Your task to perform on an android device: toggle location history Image 0: 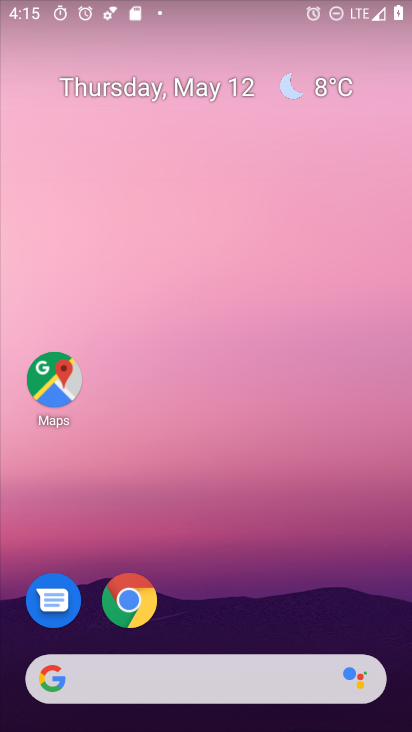
Step 0: drag from (215, 719) to (215, 96)
Your task to perform on an android device: toggle location history Image 1: 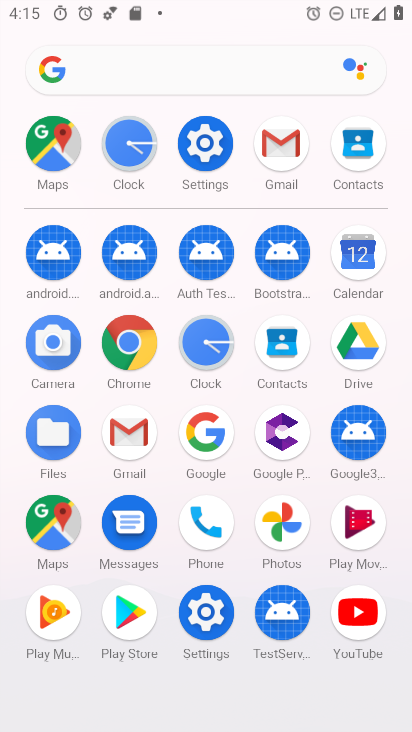
Step 1: click (198, 151)
Your task to perform on an android device: toggle location history Image 2: 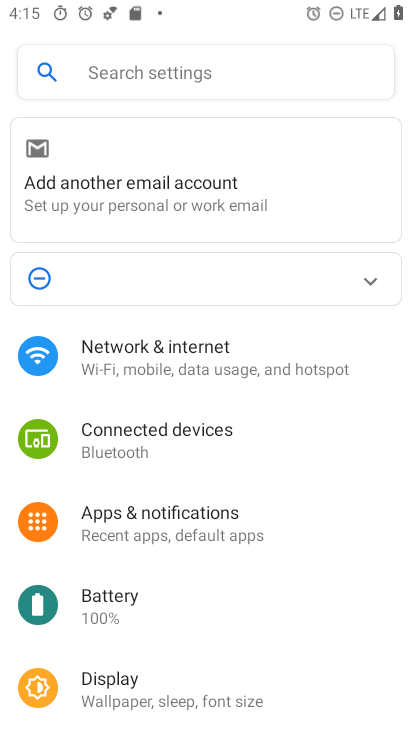
Step 2: drag from (120, 699) to (124, 299)
Your task to perform on an android device: toggle location history Image 3: 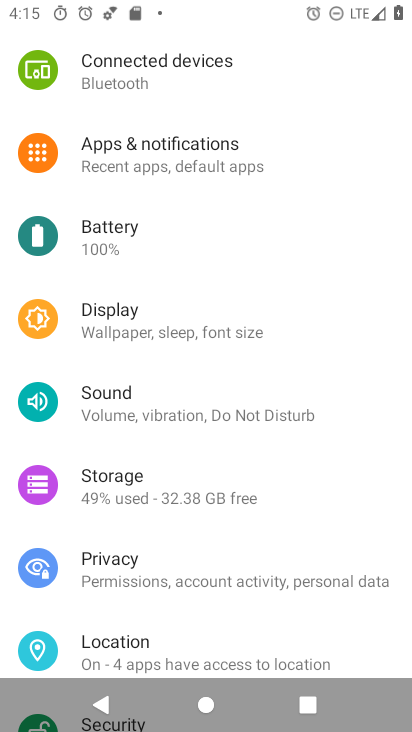
Step 3: click (107, 646)
Your task to perform on an android device: toggle location history Image 4: 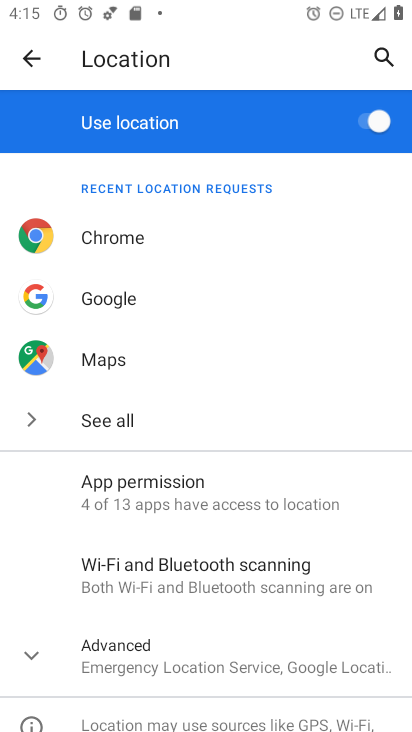
Step 4: click (95, 664)
Your task to perform on an android device: toggle location history Image 5: 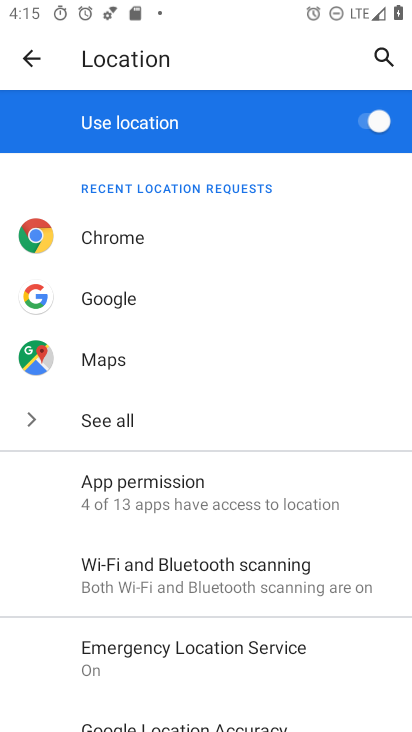
Step 5: drag from (147, 670) to (193, 278)
Your task to perform on an android device: toggle location history Image 6: 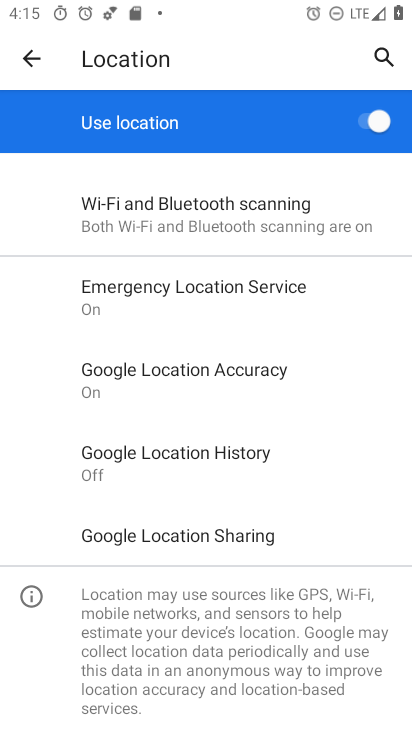
Step 6: click (218, 447)
Your task to perform on an android device: toggle location history Image 7: 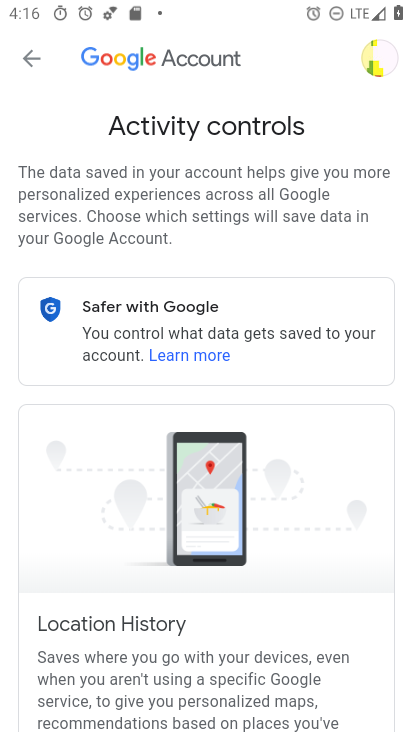
Step 7: drag from (191, 670) to (212, 293)
Your task to perform on an android device: toggle location history Image 8: 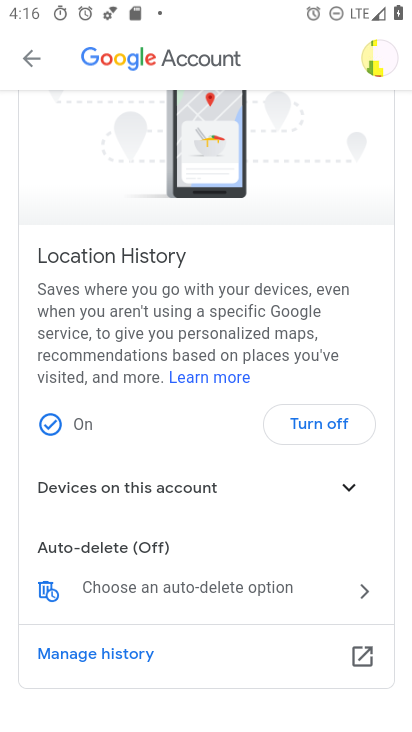
Step 8: click (320, 423)
Your task to perform on an android device: toggle location history Image 9: 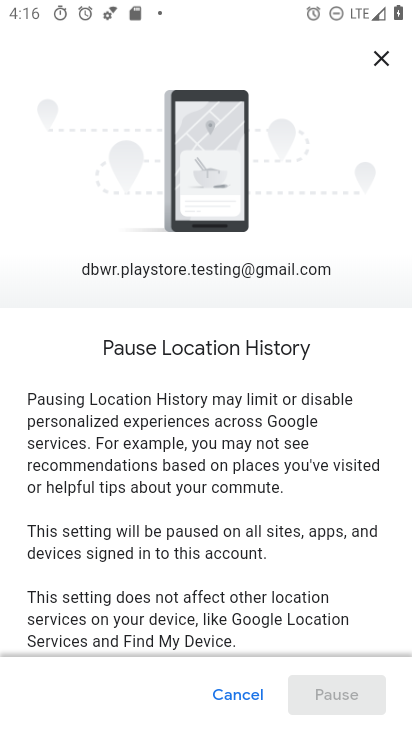
Step 9: drag from (214, 566) to (216, 250)
Your task to perform on an android device: toggle location history Image 10: 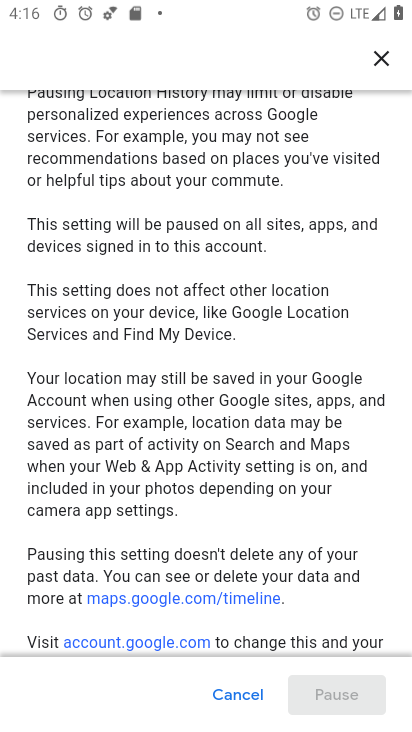
Step 10: drag from (184, 604) to (192, 170)
Your task to perform on an android device: toggle location history Image 11: 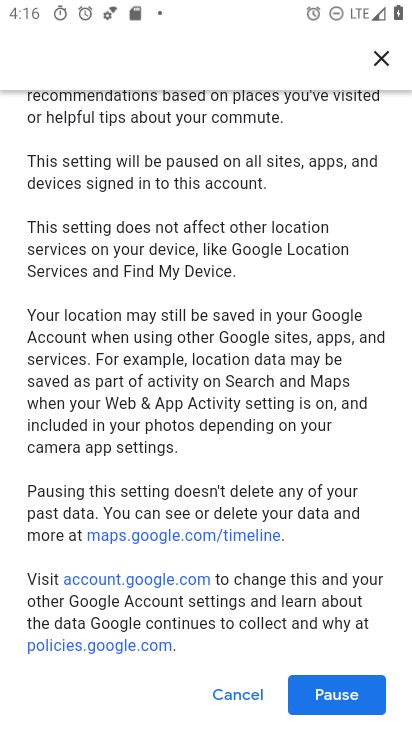
Step 11: click (326, 692)
Your task to perform on an android device: toggle location history Image 12: 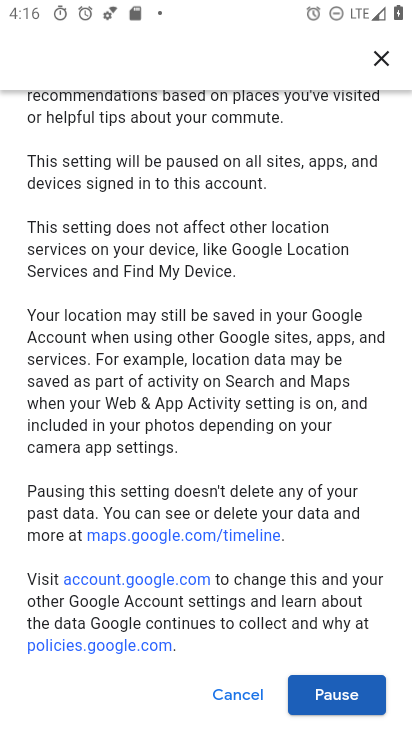
Step 12: click (326, 691)
Your task to perform on an android device: toggle location history Image 13: 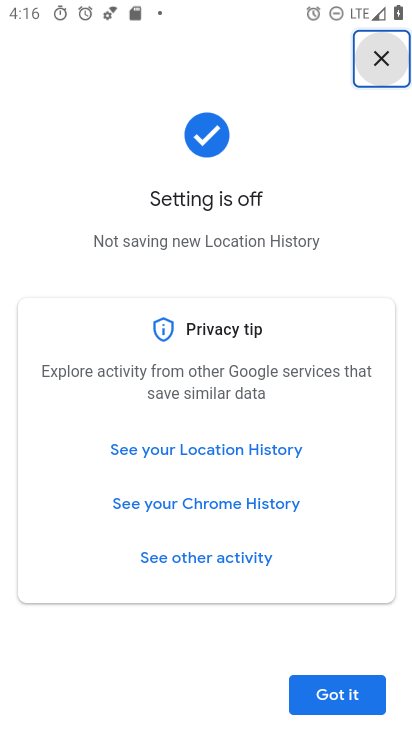
Step 13: click (341, 691)
Your task to perform on an android device: toggle location history Image 14: 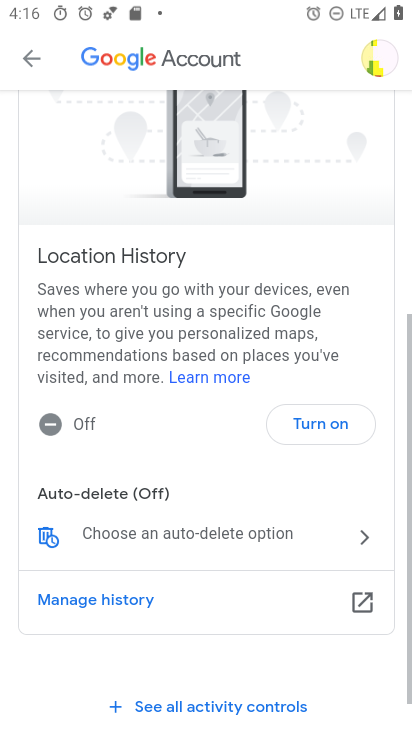
Step 14: task complete